Your task to perform on an android device: change notifications settings Image 0: 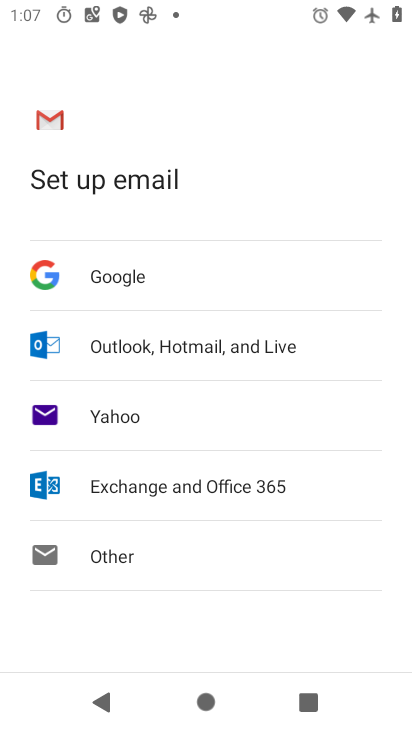
Step 0: press home button
Your task to perform on an android device: change notifications settings Image 1: 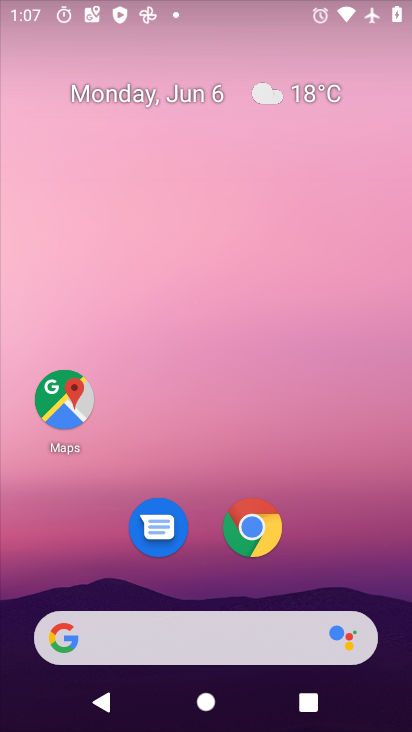
Step 1: drag from (292, 338) to (170, 10)
Your task to perform on an android device: change notifications settings Image 2: 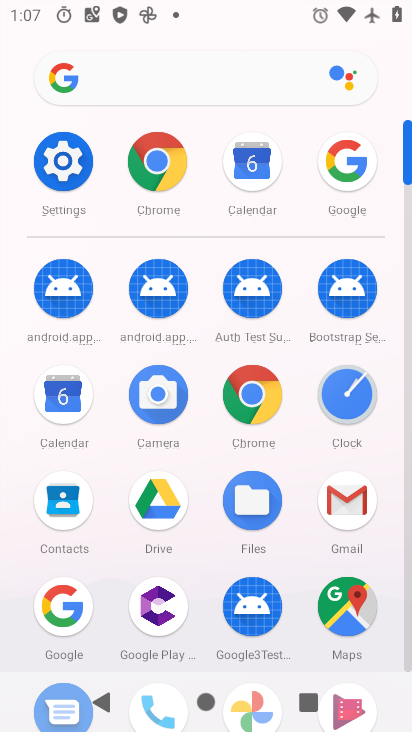
Step 2: click (65, 167)
Your task to perform on an android device: change notifications settings Image 3: 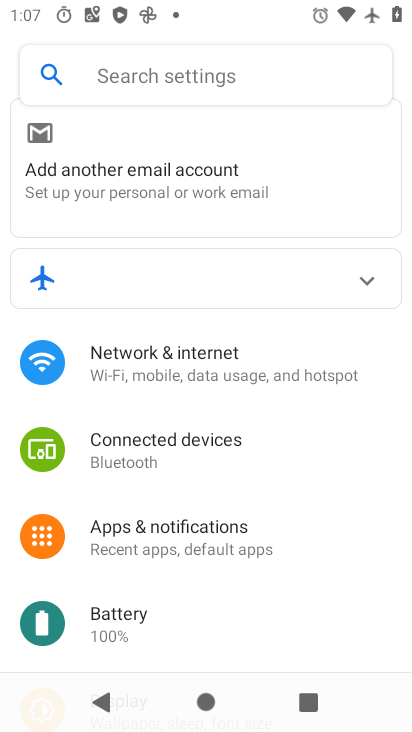
Step 3: click (236, 514)
Your task to perform on an android device: change notifications settings Image 4: 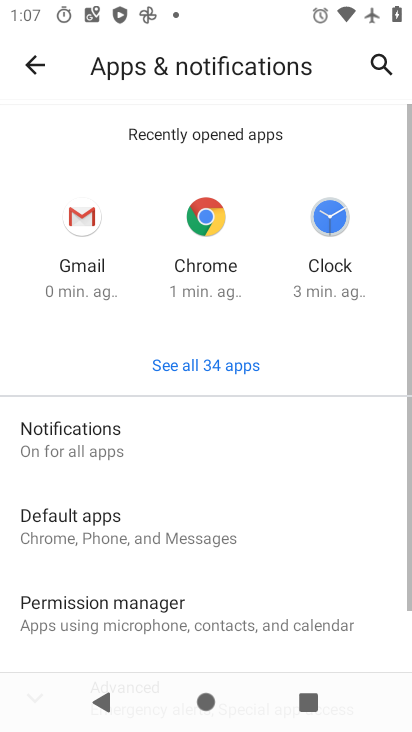
Step 4: click (180, 435)
Your task to perform on an android device: change notifications settings Image 5: 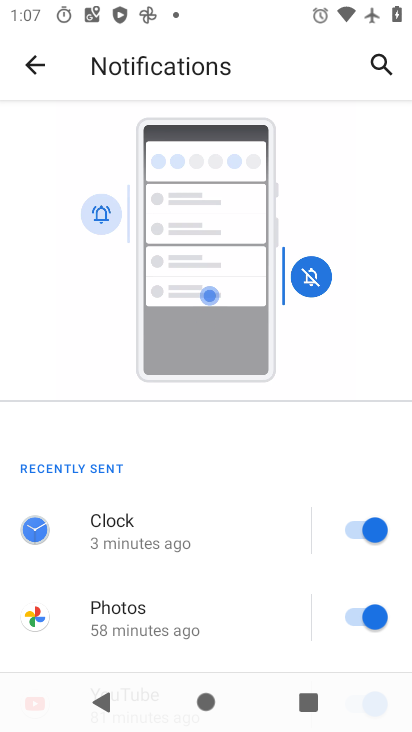
Step 5: drag from (240, 568) to (156, 1)
Your task to perform on an android device: change notifications settings Image 6: 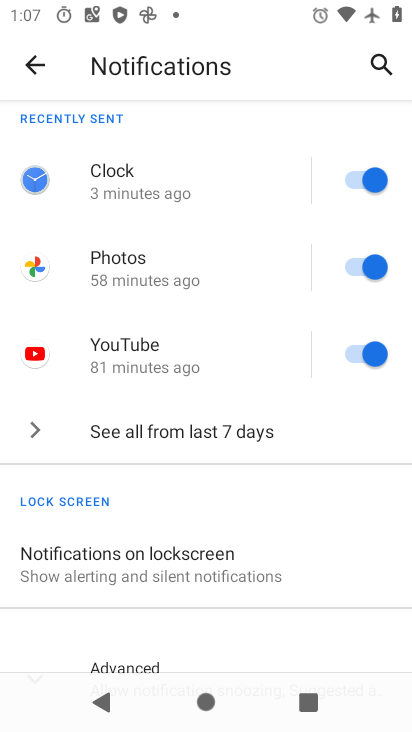
Step 6: click (365, 186)
Your task to perform on an android device: change notifications settings Image 7: 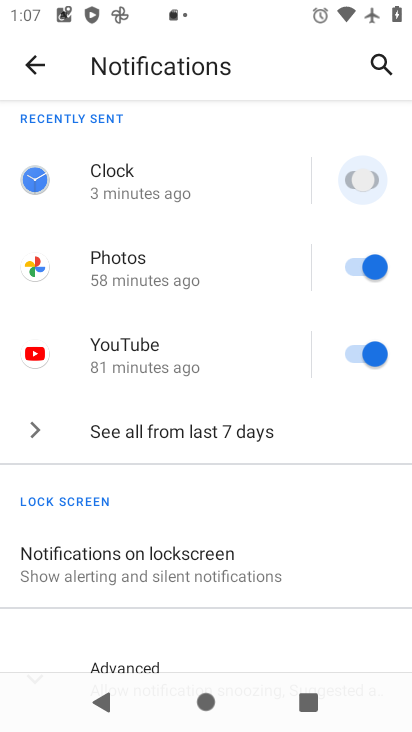
Step 7: click (350, 265)
Your task to perform on an android device: change notifications settings Image 8: 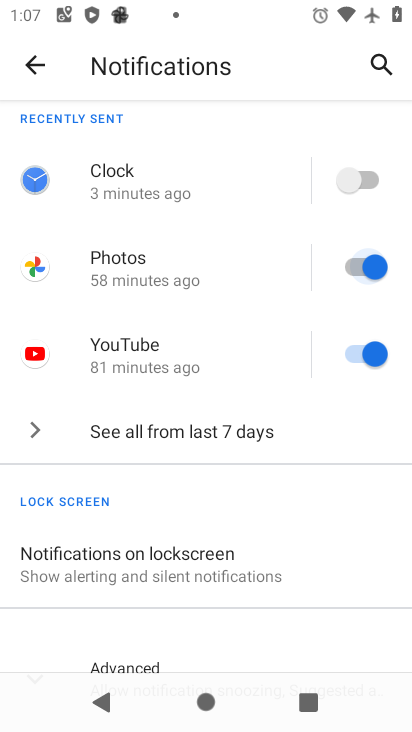
Step 8: click (369, 358)
Your task to perform on an android device: change notifications settings Image 9: 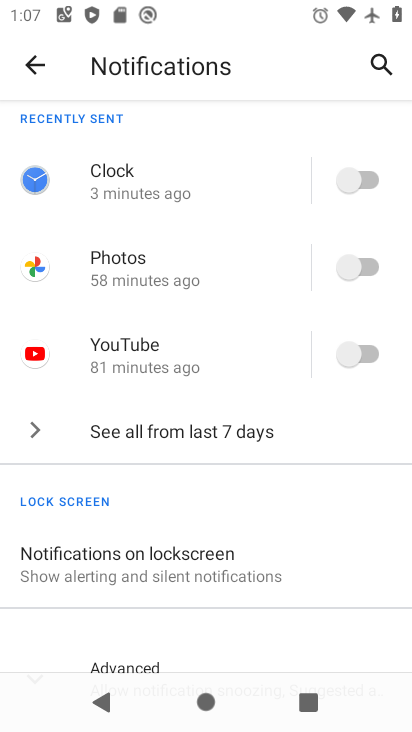
Step 9: task complete